Your task to perform on an android device: turn notification dots off Image 0: 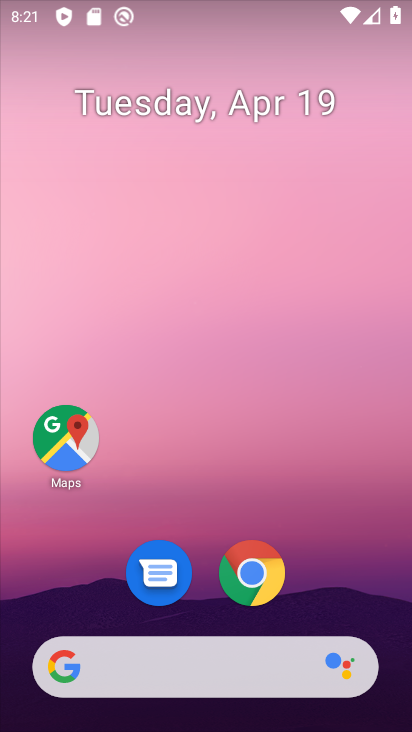
Step 0: drag from (333, 542) to (308, 157)
Your task to perform on an android device: turn notification dots off Image 1: 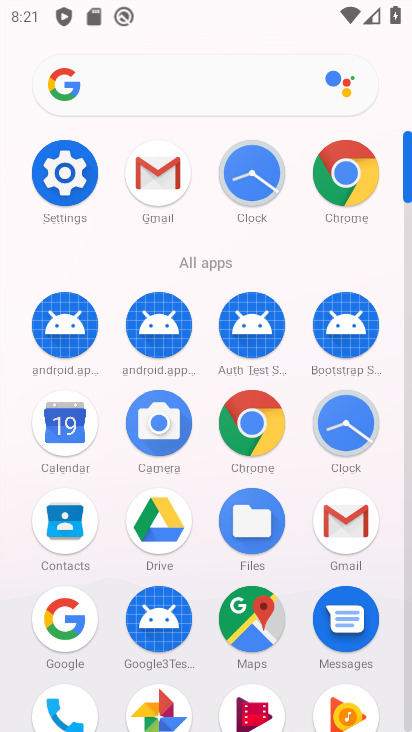
Step 1: click (61, 173)
Your task to perform on an android device: turn notification dots off Image 2: 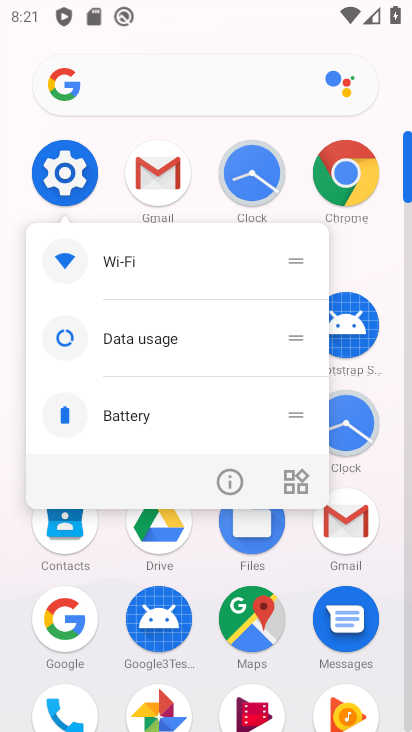
Step 2: click (62, 173)
Your task to perform on an android device: turn notification dots off Image 3: 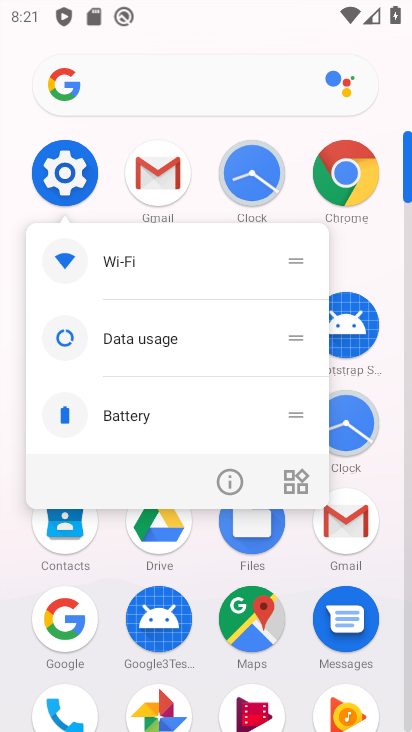
Step 3: click (69, 171)
Your task to perform on an android device: turn notification dots off Image 4: 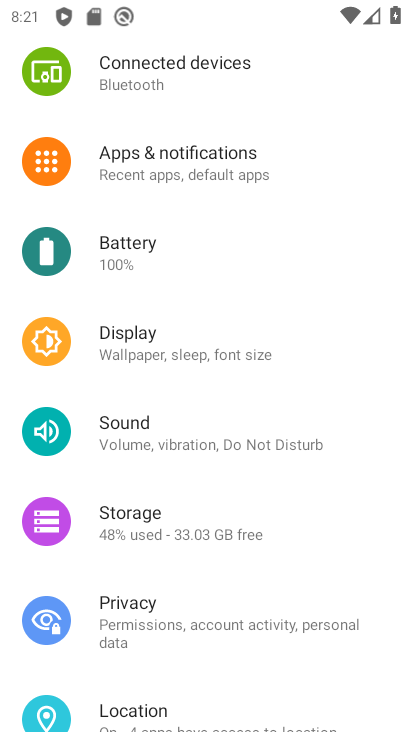
Step 4: click (159, 155)
Your task to perform on an android device: turn notification dots off Image 5: 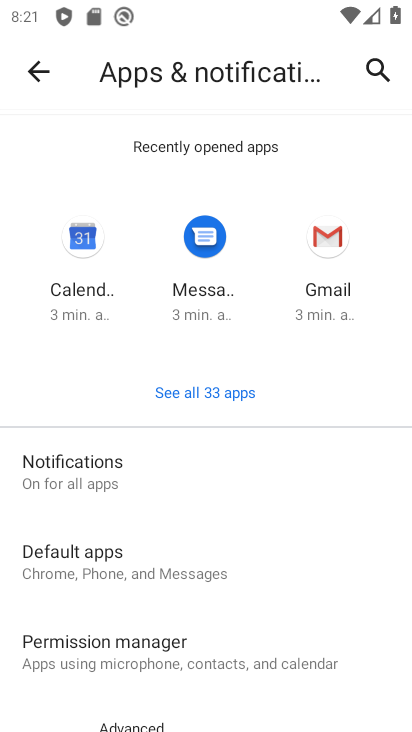
Step 5: click (88, 460)
Your task to perform on an android device: turn notification dots off Image 6: 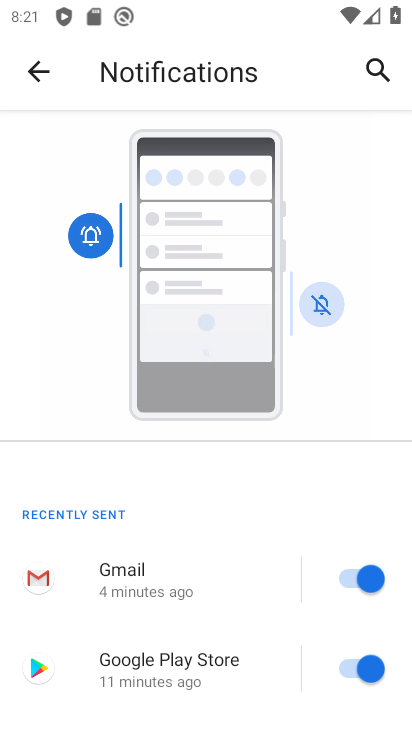
Step 6: drag from (217, 617) to (198, 188)
Your task to perform on an android device: turn notification dots off Image 7: 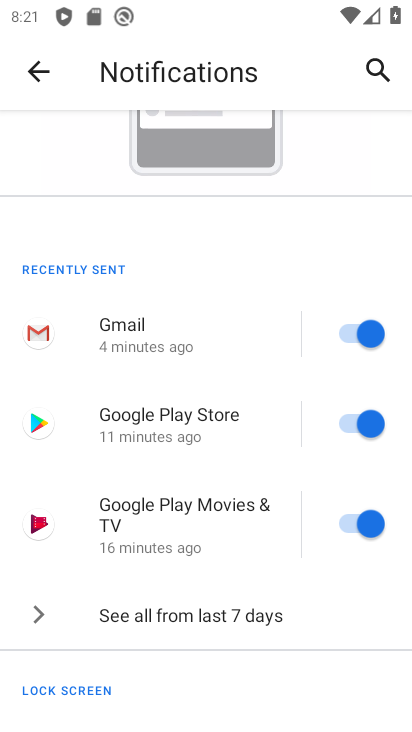
Step 7: drag from (171, 652) to (185, 237)
Your task to perform on an android device: turn notification dots off Image 8: 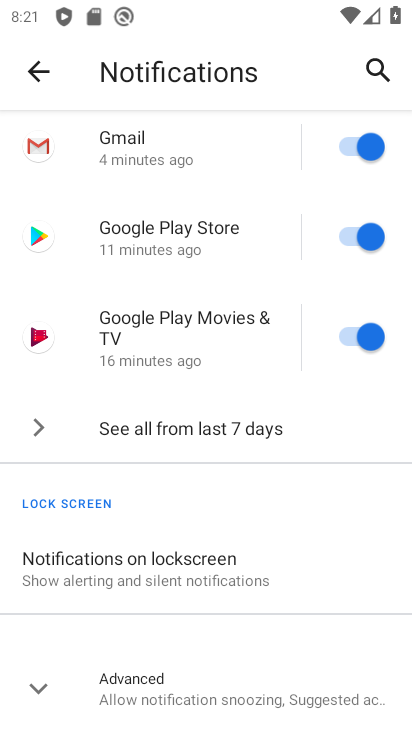
Step 8: click (196, 694)
Your task to perform on an android device: turn notification dots off Image 9: 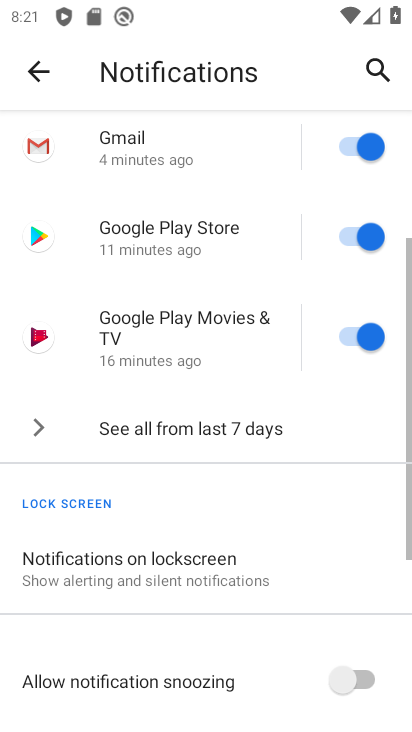
Step 9: drag from (201, 651) to (231, 191)
Your task to perform on an android device: turn notification dots off Image 10: 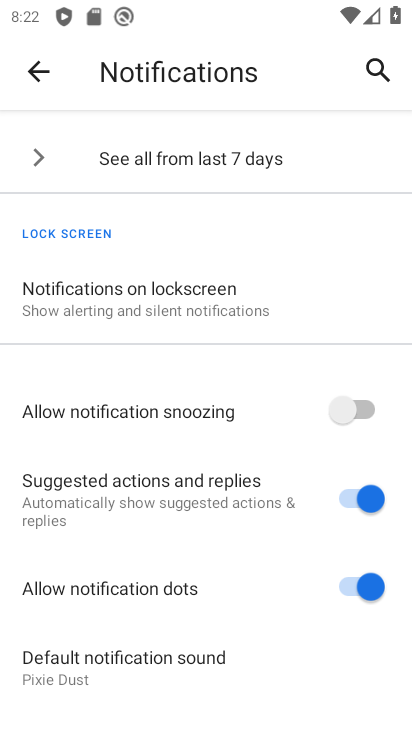
Step 10: click (346, 580)
Your task to perform on an android device: turn notification dots off Image 11: 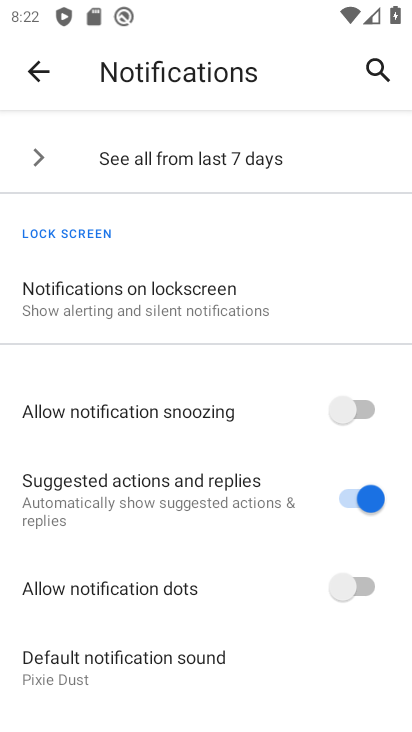
Step 11: task complete